Your task to perform on an android device: Open settings on Google Maps Image 0: 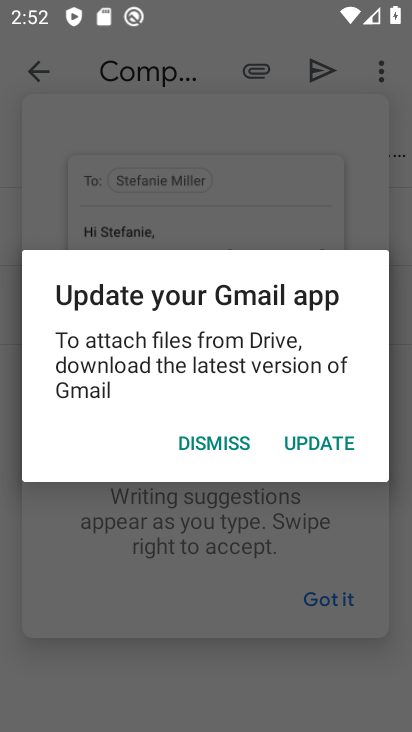
Step 0: press home button
Your task to perform on an android device: Open settings on Google Maps Image 1: 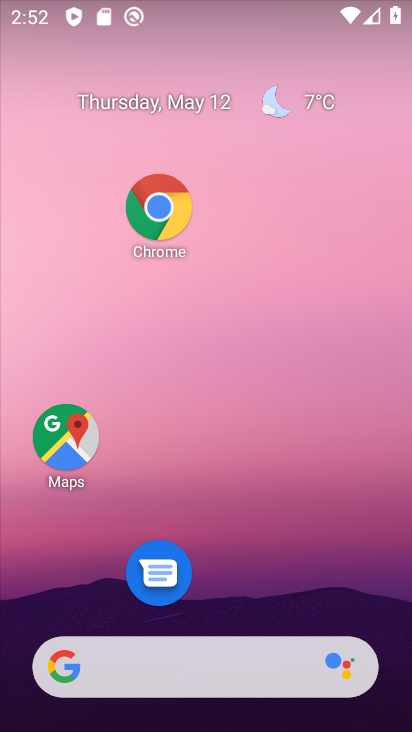
Step 1: click (75, 422)
Your task to perform on an android device: Open settings on Google Maps Image 2: 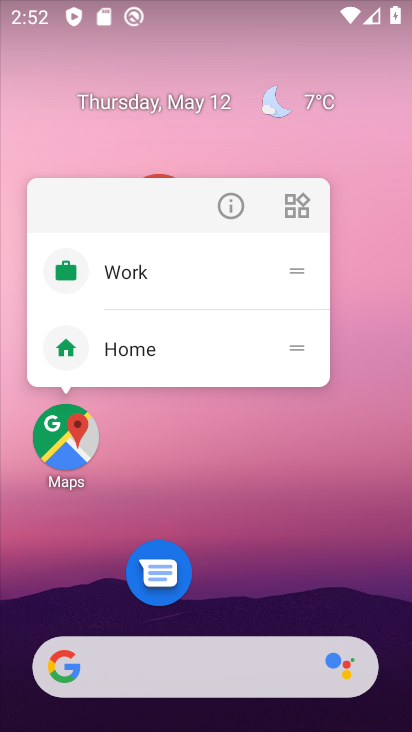
Step 2: click (86, 423)
Your task to perform on an android device: Open settings on Google Maps Image 3: 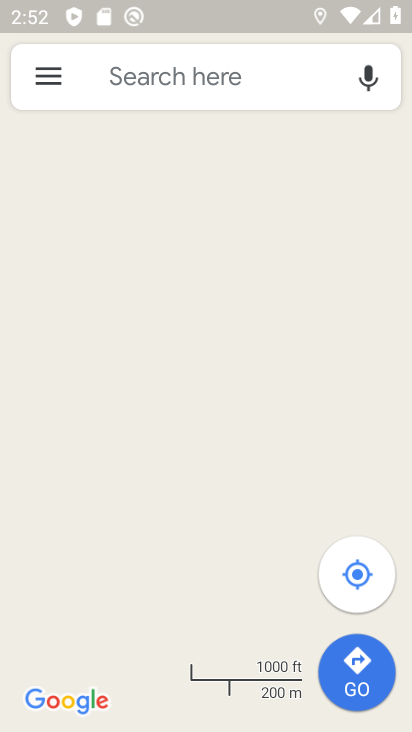
Step 3: click (52, 68)
Your task to perform on an android device: Open settings on Google Maps Image 4: 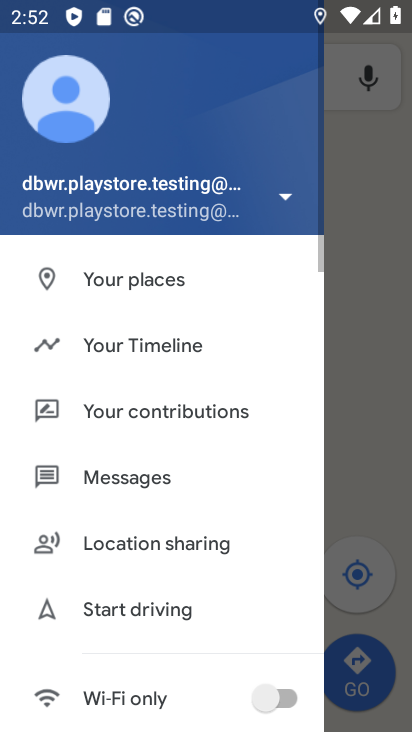
Step 4: drag from (95, 575) to (159, 212)
Your task to perform on an android device: Open settings on Google Maps Image 5: 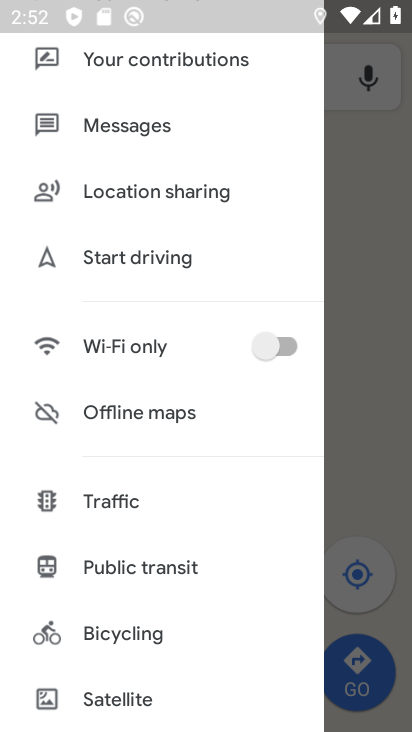
Step 5: drag from (64, 676) to (157, 339)
Your task to perform on an android device: Open settings on Google Maps Image 6: 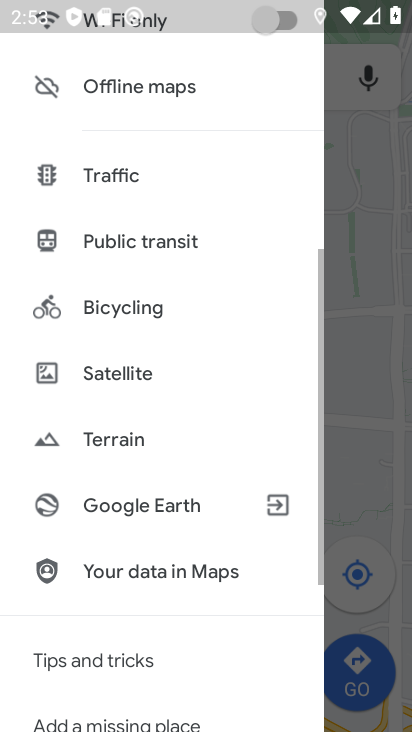
Step 6: drag from (157, 663) to (176, 364)
Your task to perform on an android device: Open settings on Google Maps Image 7: 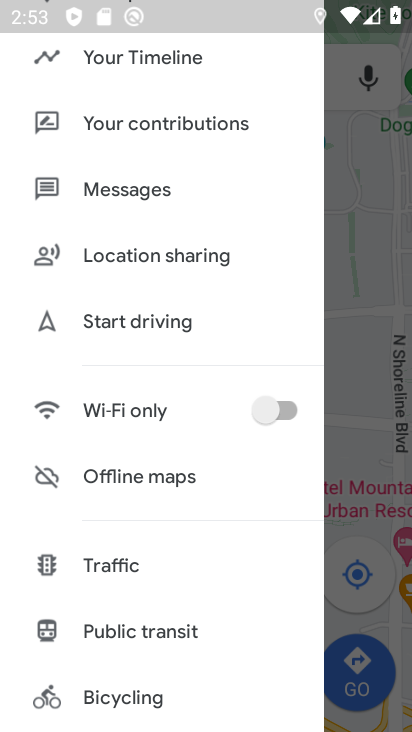
Step 7: drag from (156, 611) to (197, 322)
Your task to perform on an android device: Open settings on Google Maps Image 8: 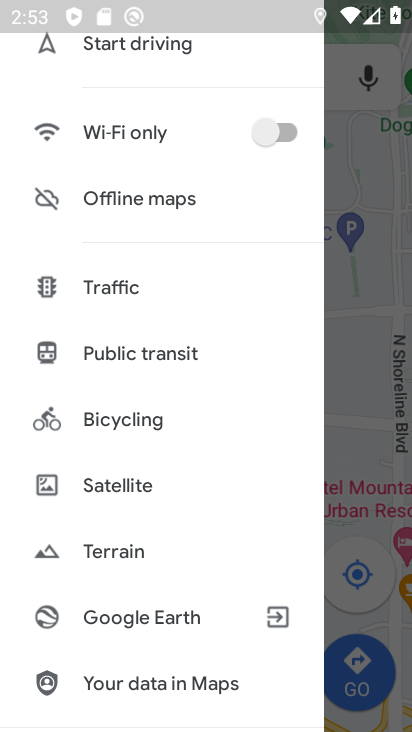
Step 8: drag from (119, 666) to (167, 365)
Your task to perform on an android device: Open settings on Google Maps Image 9: 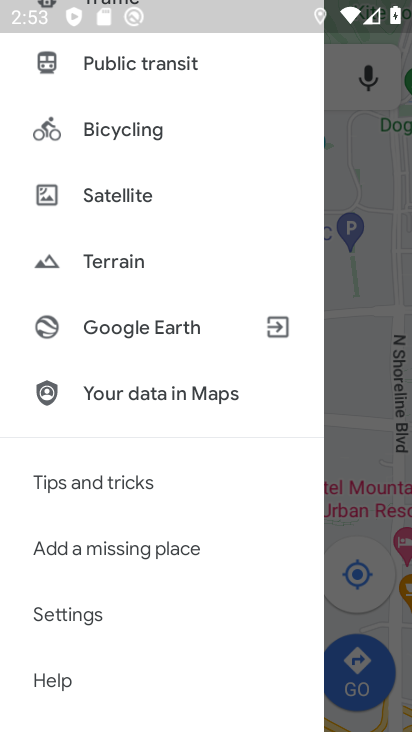
Step 9: click (111, 622)
Your task to perform on an android device: Open settings on Google Maps Image 10: 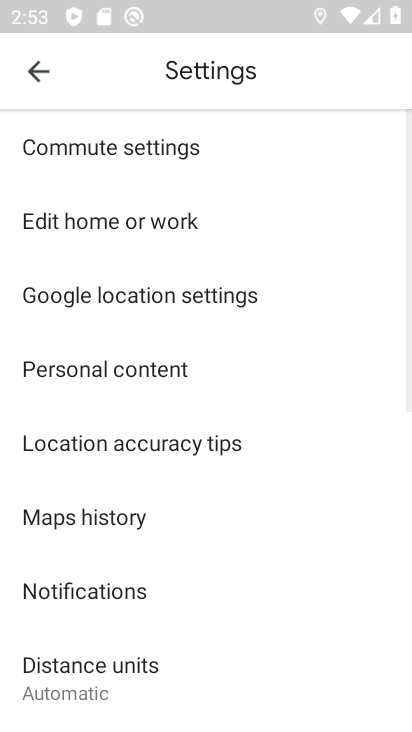
Step 10: task complete